Your task to perform on an android device: Open Wikipedia Image 0: 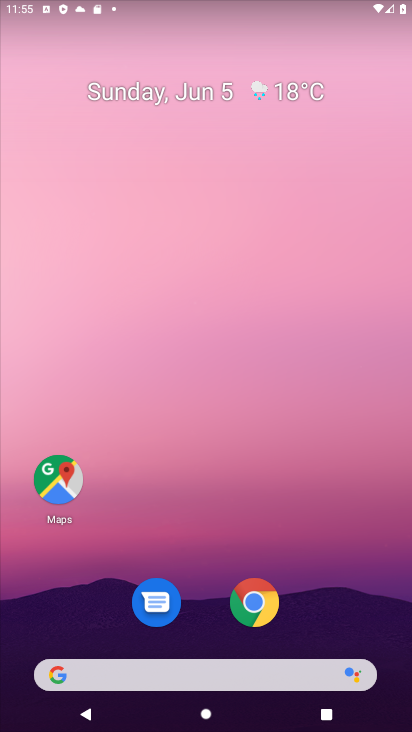
Step 0: click (231, 670)
Your task to perform on an android device: Open Wikipedia Image 1: 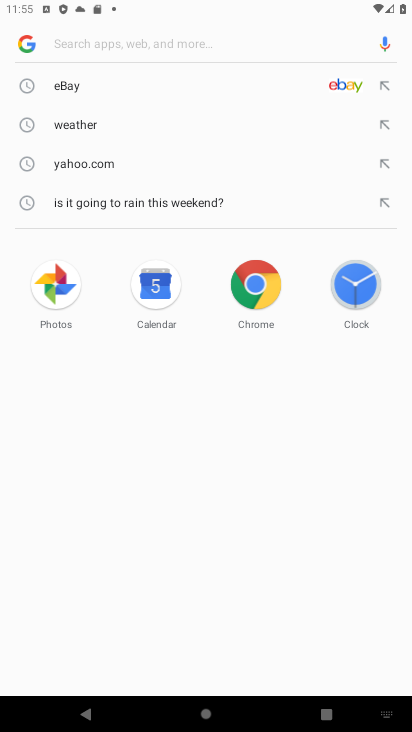
Step 1: type "wikipedia"
Your task to perform on an android device: Open Wikipedia Image 2: 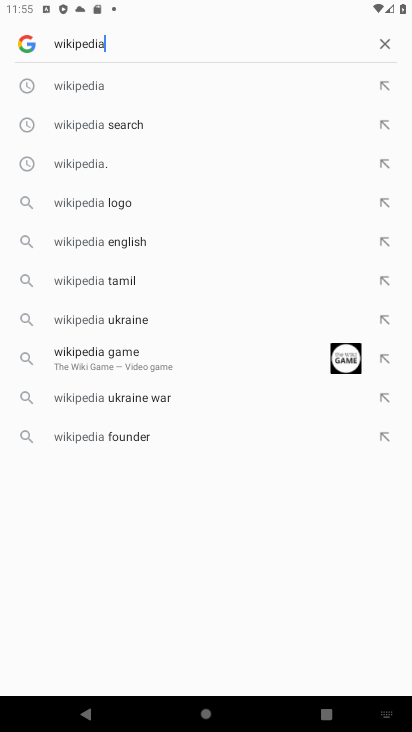
Step 2: click (110, 97)
Your task to perform on an android device: Open Wikipedia Image 3: 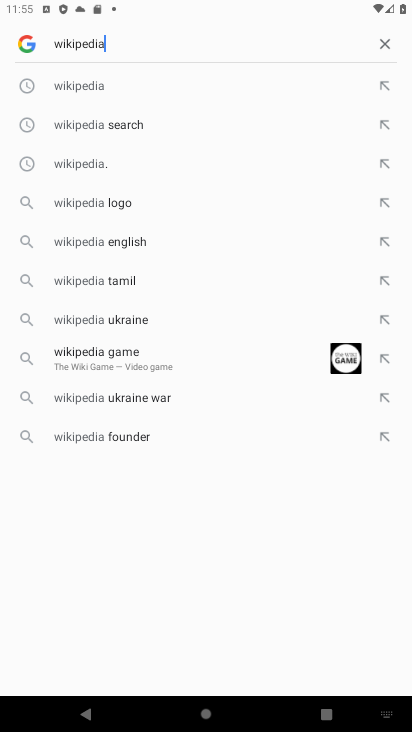
Step 3: click (110, 97)
Your task to perform on an android device: Open Wikipedia Image 4: 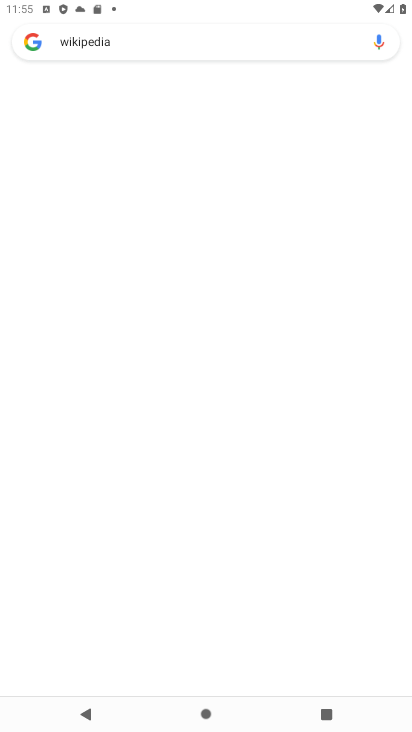
Step 4: task complete